Your task to perform on an android device: Search for Italian restaurants on Maps Image 0: 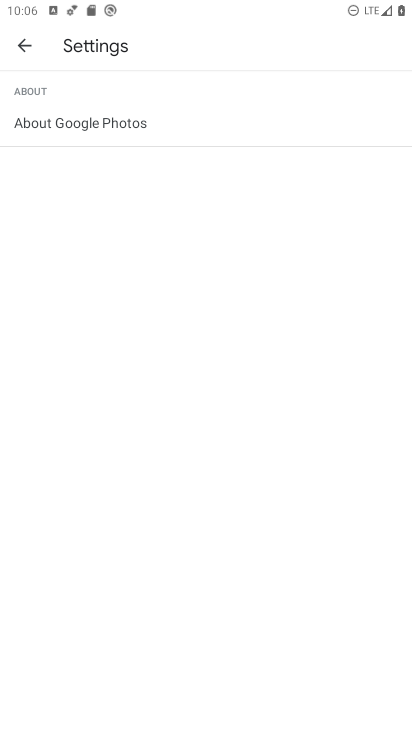
Step 0: press home button
Your task to perform on an android device: Search for Italian restaurants on Maps Image 1: 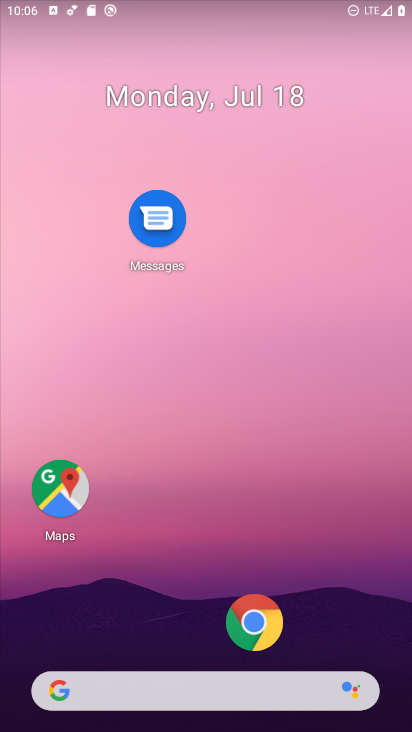
Step 1: drag from (167, 652) to (166, 188)
Your task to perform on an android device: Search for Italian restaurants on Maps Image 2: 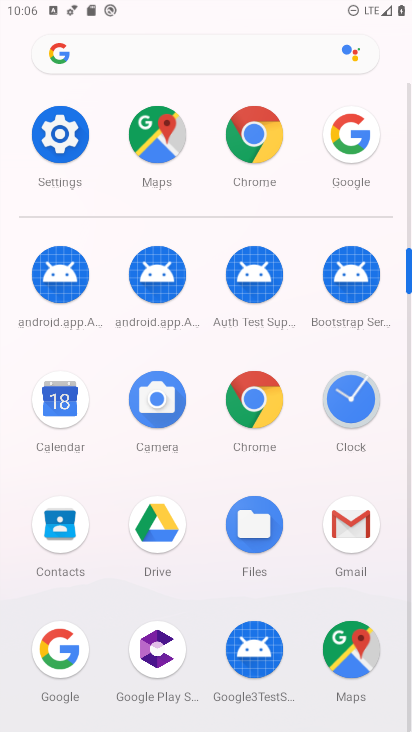
Step 2: click (363, 664)
Your task to perform on an android device: Search for Italian restaurants on Maps Image 3: 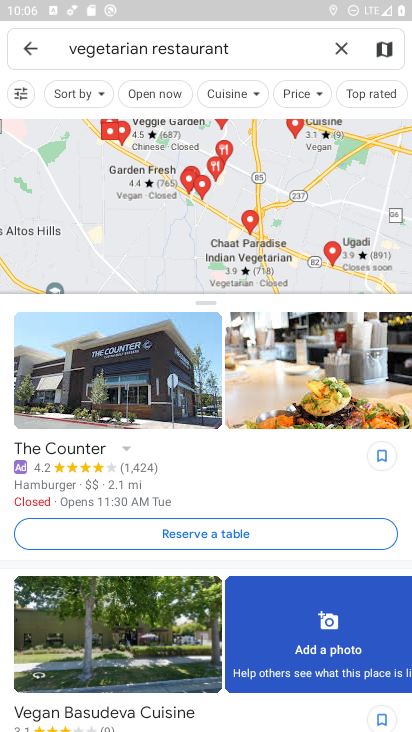
Step 3: click (345, 51)
Your task to perform on an android device: Search for Italian restaurants on Maps Image 4: 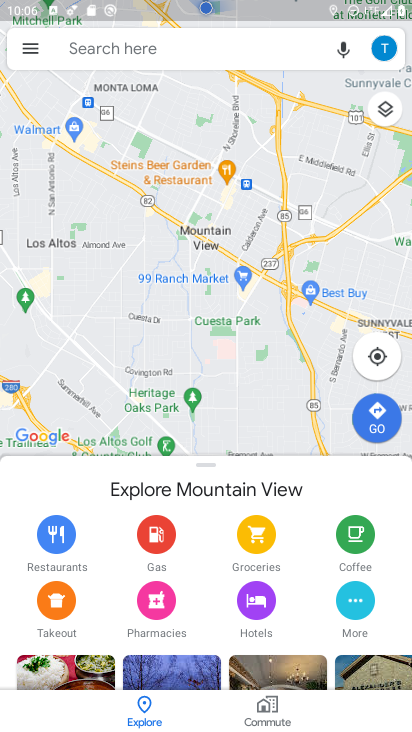
Step 4: click (145, 54)
Your task to perform on an android device: Search for Italian restaurants on Maps Image 5: 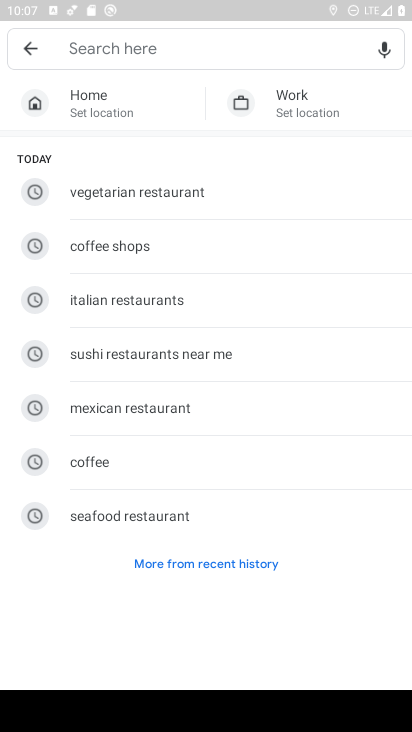
Step 5: click (155, 306)
Your task to perform on an android device: Search for Italian restaurants on Maps Image 6: 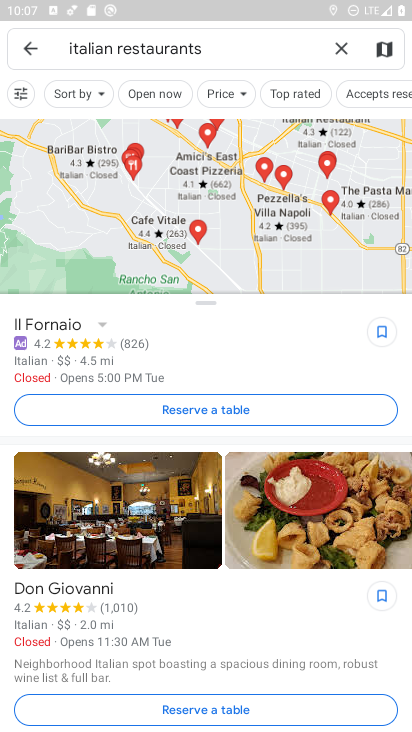
Step 6: task complete